Your task to perform on an android device: turn off priority inbox in the gmail app Image 0: 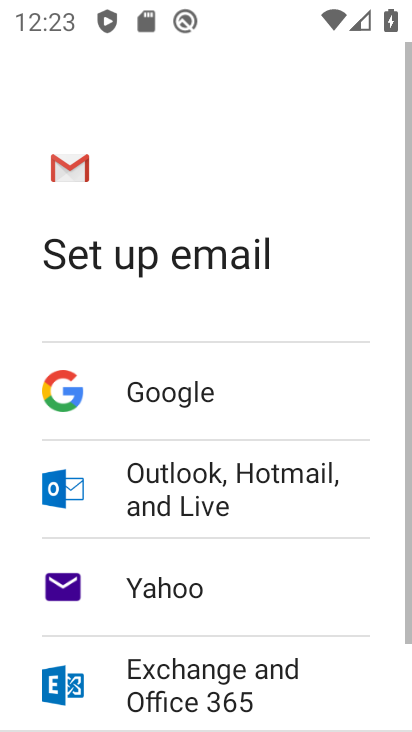
Step 0: press home button
Your task to perform on an android device: turn off priority inbox in the gmail app Image 1: 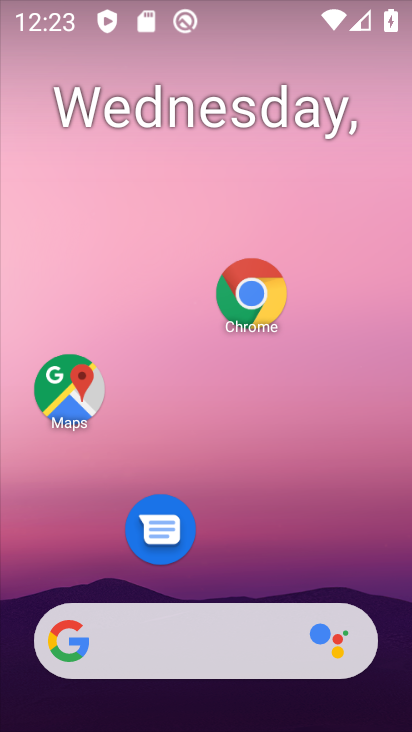
Step 1: drag from (248, 554) to (279, 443)
Your task to perform on an android device: turn off priority inbox in the gmail app Image 2: 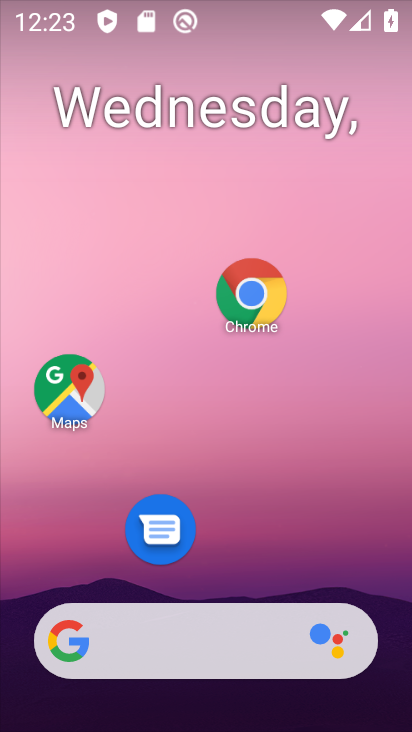
Step 2: drag from (321, 482) to (329, 191)
Your task to perform on an android device: turn off priority inbox in the gmail app Image 3: 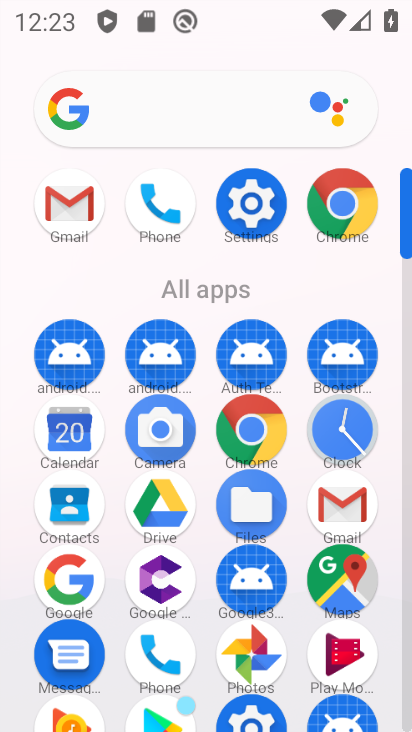
Step 3: click (342, 521)
Your task to perform on an android device: turn off priority inbox in the gmail app Image 4: 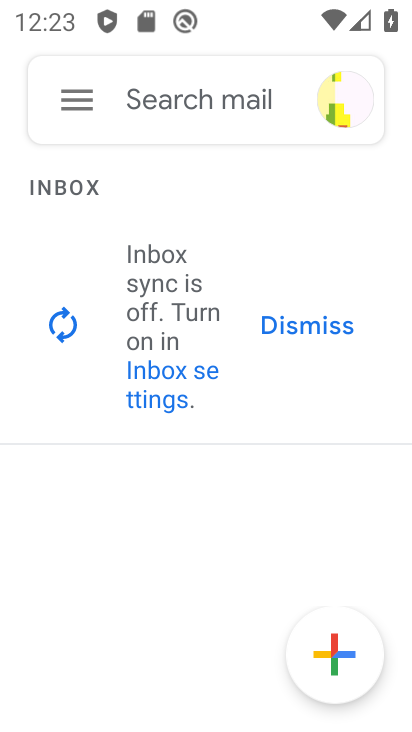
Step 4: click (100, 95)
Your task to perform on an android device: turn off priority inbox in the gmail app Image 5: 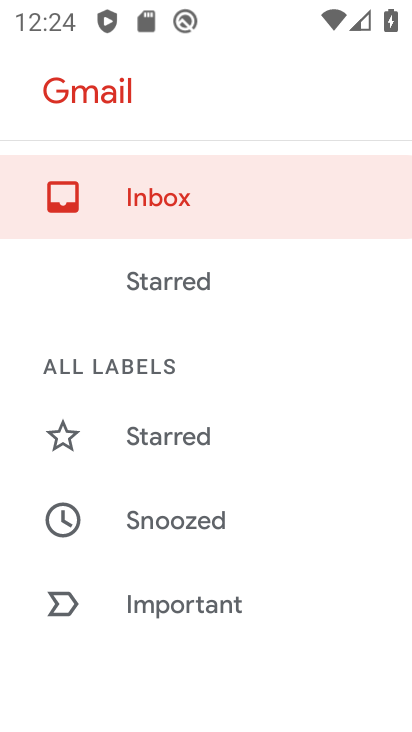
Step 5: drag from (137, 427) to (163, 10)
Your task to perform on an android device: turn off priority inbox in the gmail app Image 6: 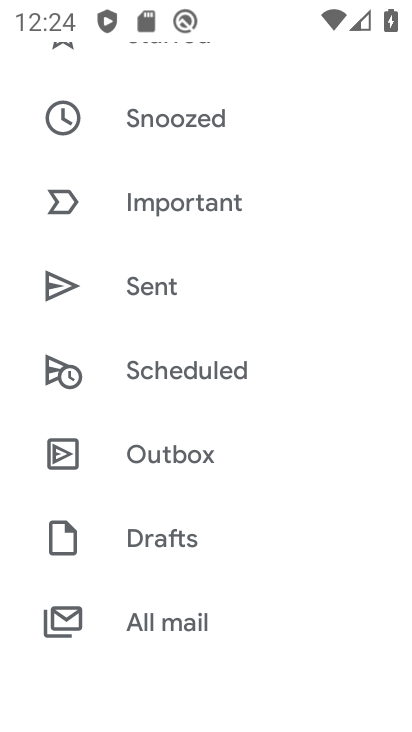
Step 6: drag from (188, 448) to (230, 103)
Your task to perform on an android device: turn off priority inbox in the gmail app Image 7: 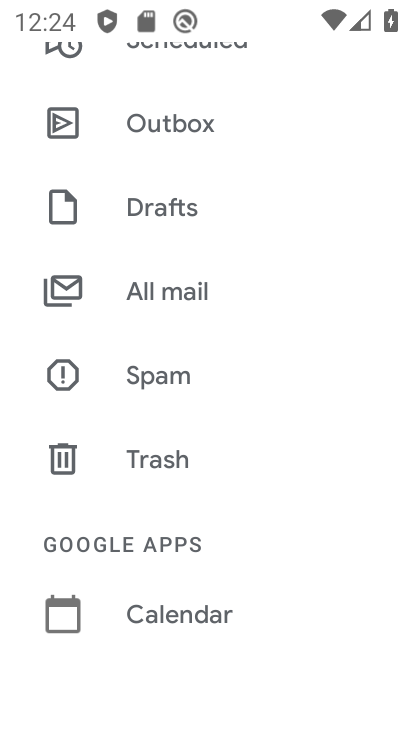
Step 7: drag from (234, 417) to (234, 357)
Your task to perform on an android device: turn off priority inbox in the gmail app Image 8: 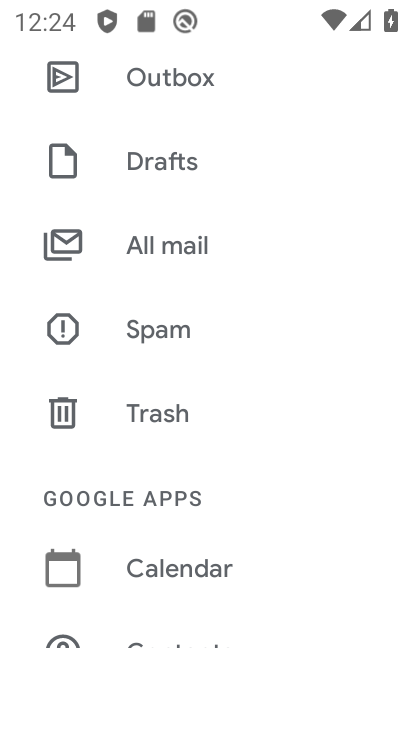
Step 8: drag from (190, 344) to (196, 33)
Your task to perform on an android device: turn off priority inbox in the gmail app Image 9: 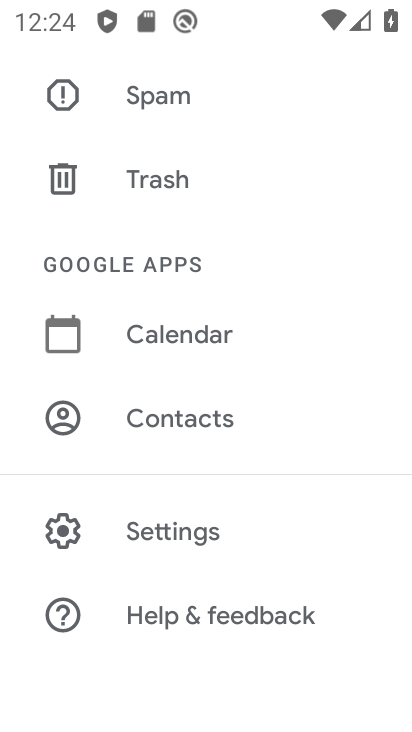
Step 9: click (134, 537)
Your task to perform on an android device: turn off priority inbox in the gmail app Image 10: 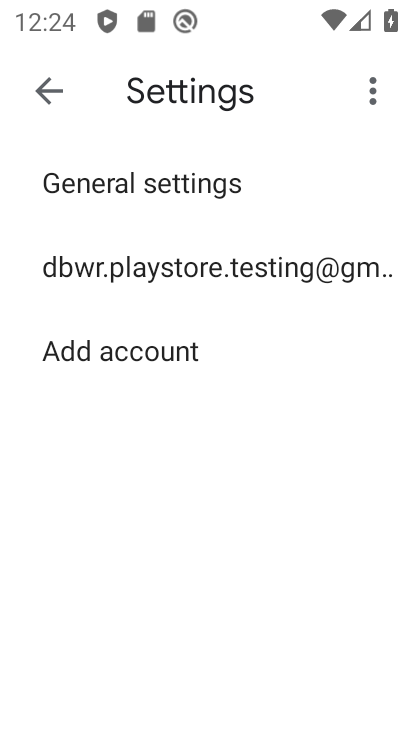
Step 10: click (250, 286)
Your task to perform on an android device: turn off priority inbox in the gmail app Image 11: 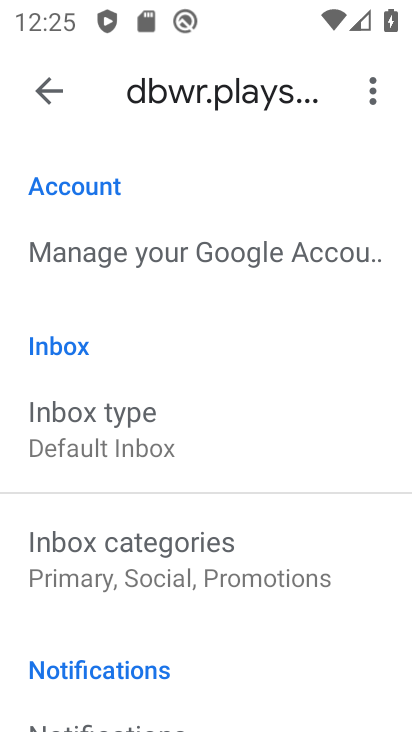
Step 11: click (139, 436)
Your task to perform on an android device: turn off priority inbox in the gmail app Image 12: 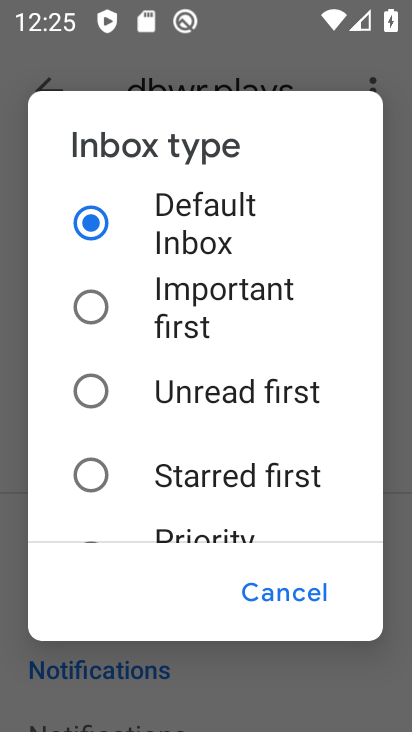
Step 12: task complete